Your task to perform on an android device: Open Yahoo.com Image 0: 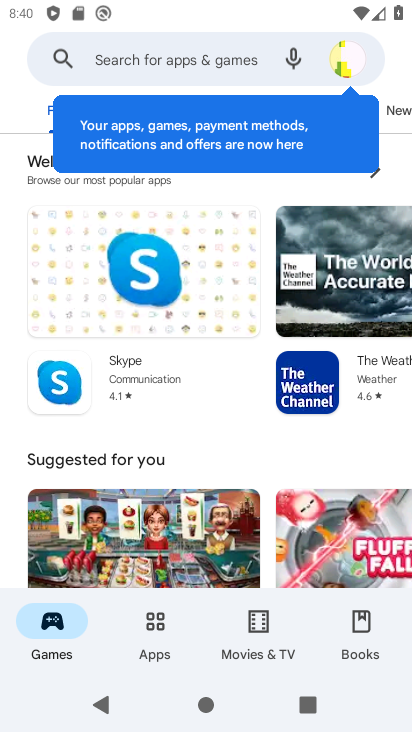
Step 0: press home button
Your task to perform on an android device: Open Yahoo.com Image 1: 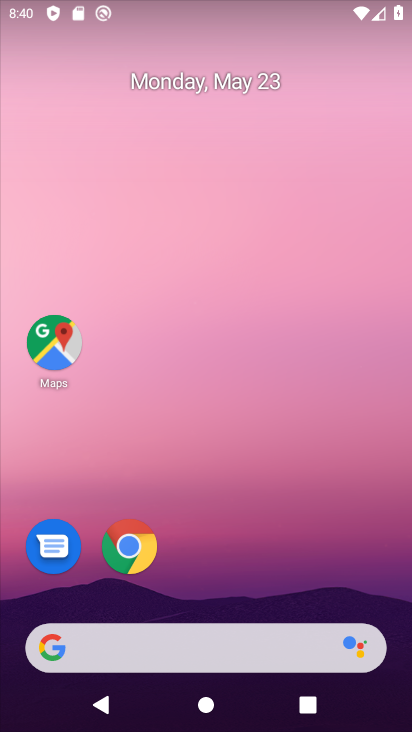
Step 1: drag from (367, 546) to (332, 174)
Your task to perform on an android device: Open Yahoo.com Image 2: 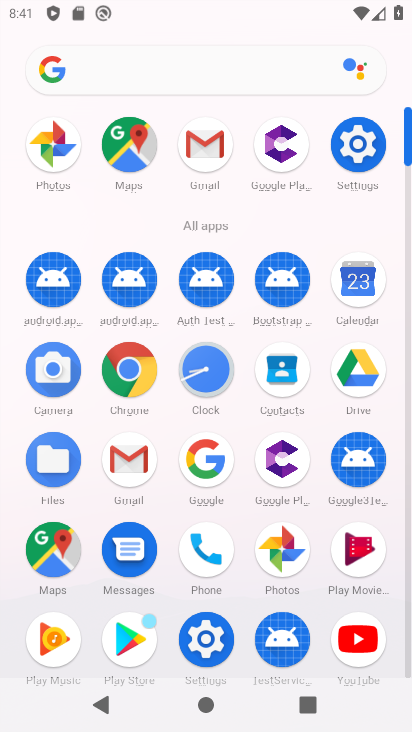
Step 2: click (126, 370)
Your task to perform on an android device: Open Yahoo.com Image 3: 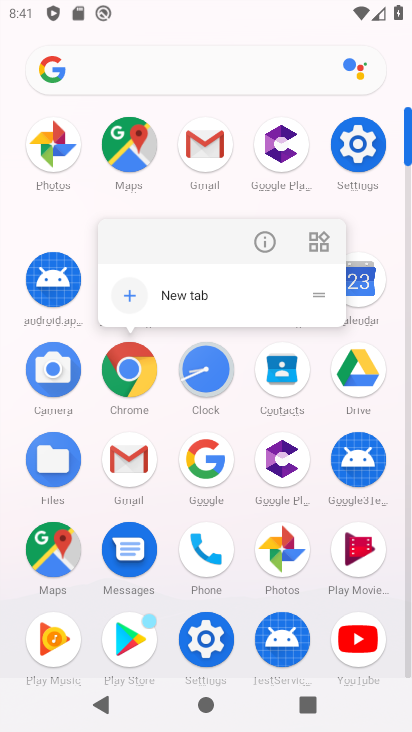
Step 3: click (129, 381)
Your task to perform on an android device: Open Yahoo.com Image 4: 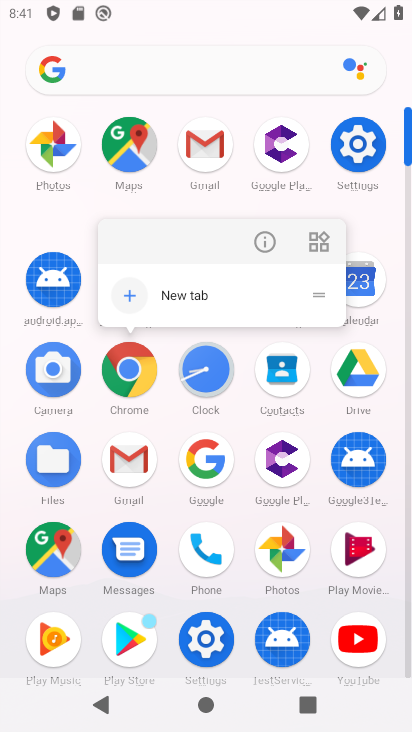
Step 4: click (135, 363)
Your task to perform on an android device: Open Yahoo.com Image 5: 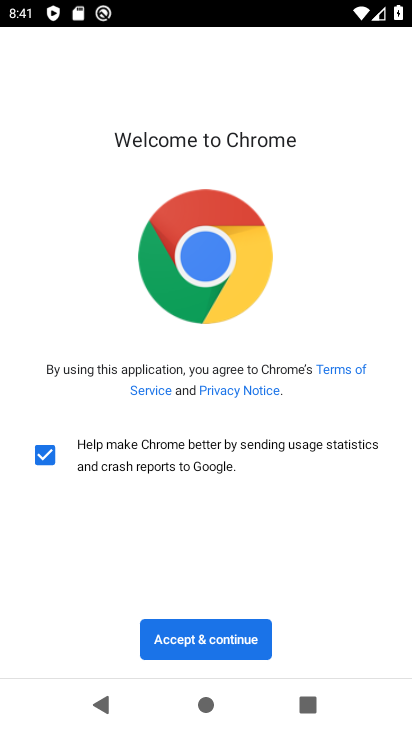
Step 5: click (259, 655)
Your task to perform on an android device: Open Yahoo.com Image 6: 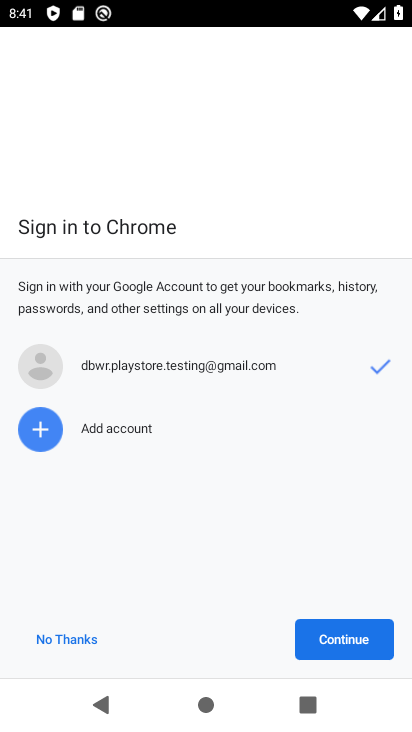
Step 6: click (352, 623)
Your task to perform on an android device: Open Yahoo.com Image 7: 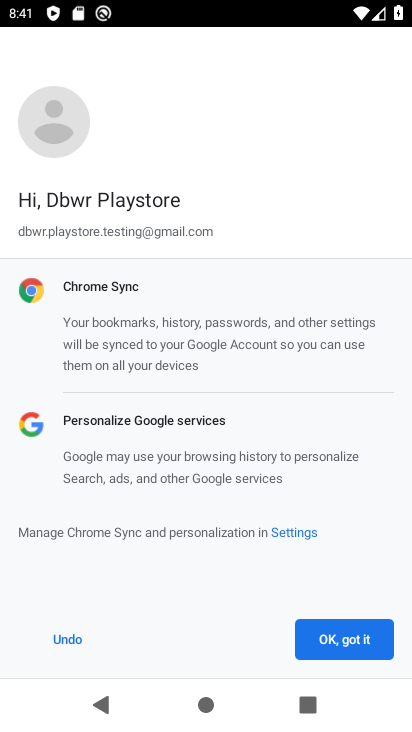
Step 7: click (349, 619)
Your task to perform on an android device: Open Yahoo.com Image 8: 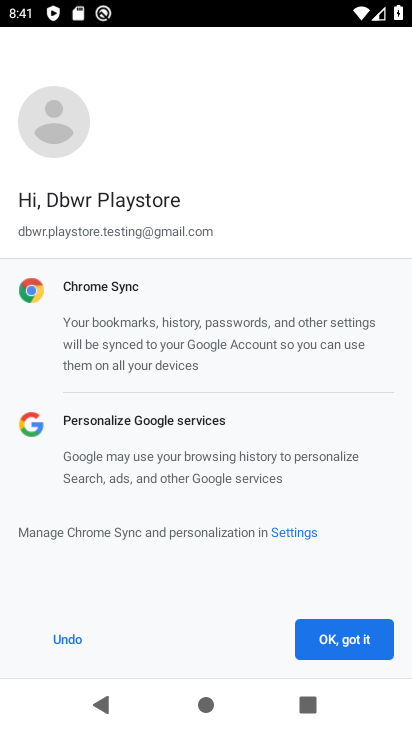
Step 8: click (330, 626)
Your task to perform on an android device: Open Yahoo.com Image 9: 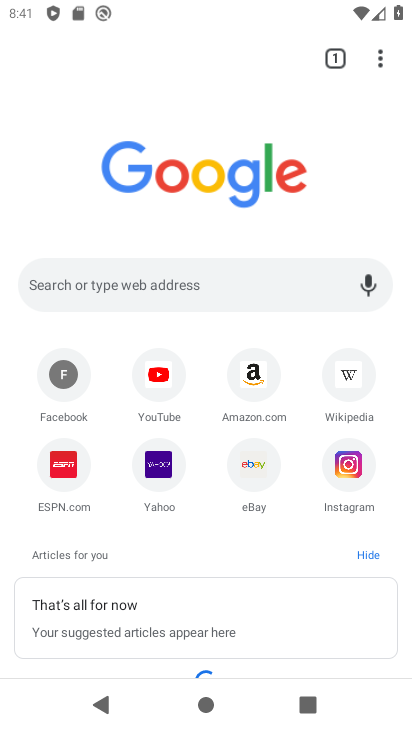
Step 9: click (167, 469)
Your task to perform on an android device: Open Yahoo.com Image 10: 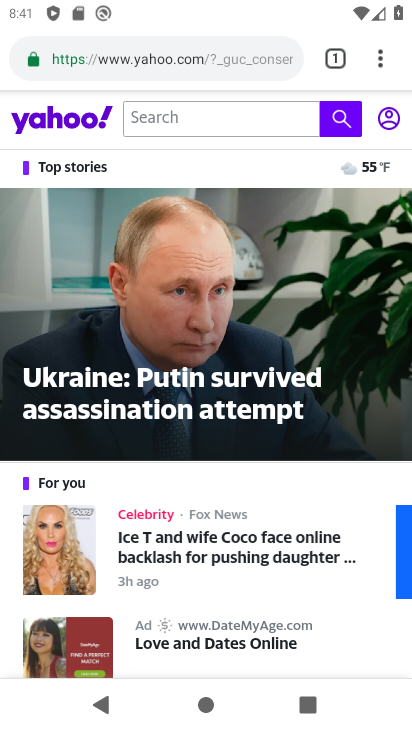
Step 10: task complete